Your task to perform on an android device: change the clock display to digital Image 0: 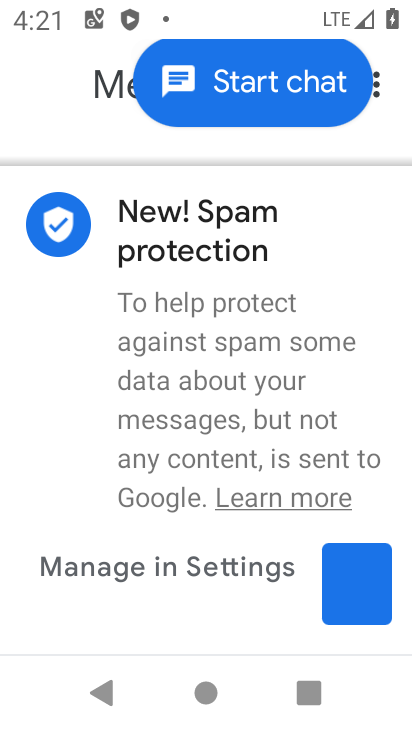
Step 0: press home button
Your task to perform on an android device: change the clock display to digital Image 1: 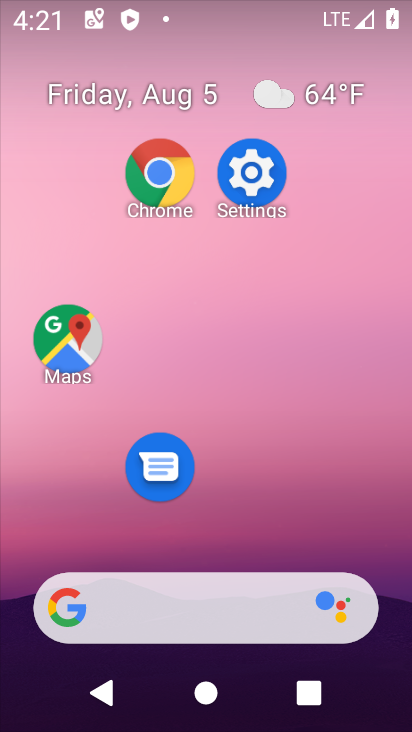
Step 1: drag from (281, 347) to (311, 0)
Your task to perform on an android device: change the clock display to digital Image 2: 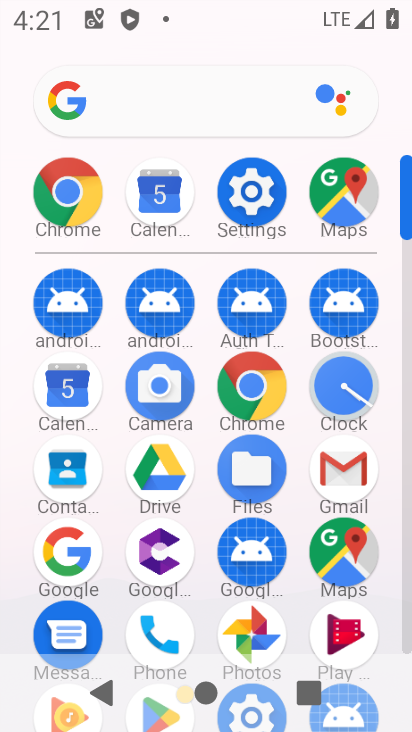
Step 2: click (255, 180)
Your task to perform on an android device: change the clock display to digital Image 3: 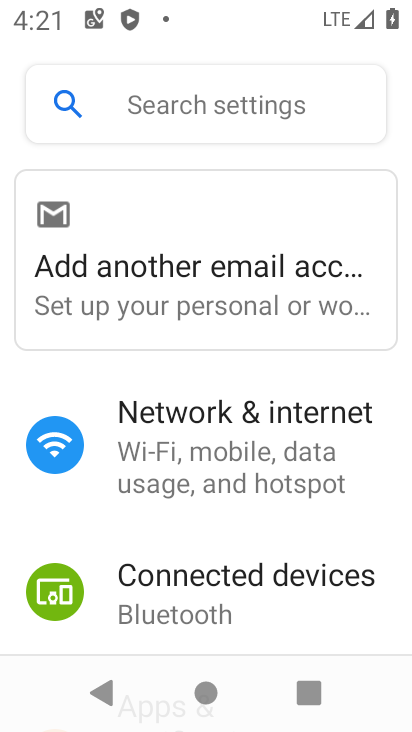
Step 3: drag from (203, 350) to (205, 60)
Your task to perform on an android device: change the clock display to digital Image 4: 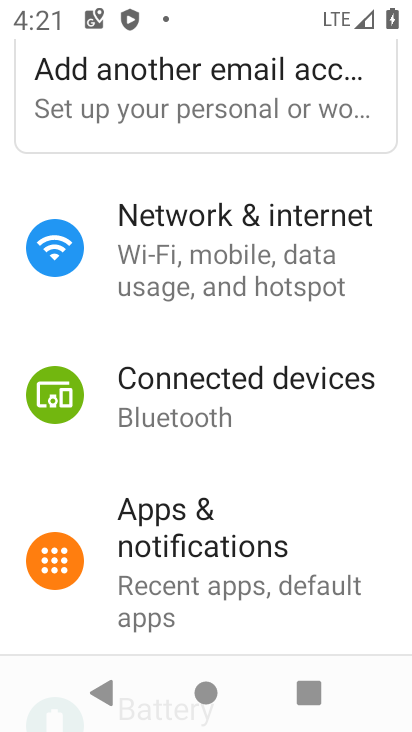
Step 4: click (181, 305)
Your task to perform on an android device: change the clock display to digital Image 5: 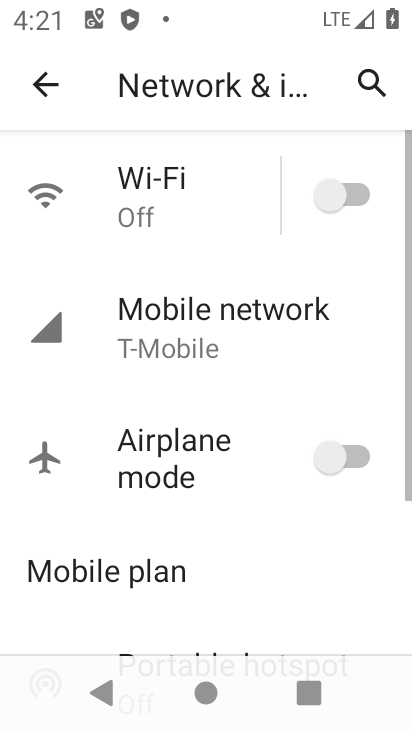
Step 5: drag from (181, 305) to (408, 143)
Your task to perform on an android device: change the clock display to digital Image 6: 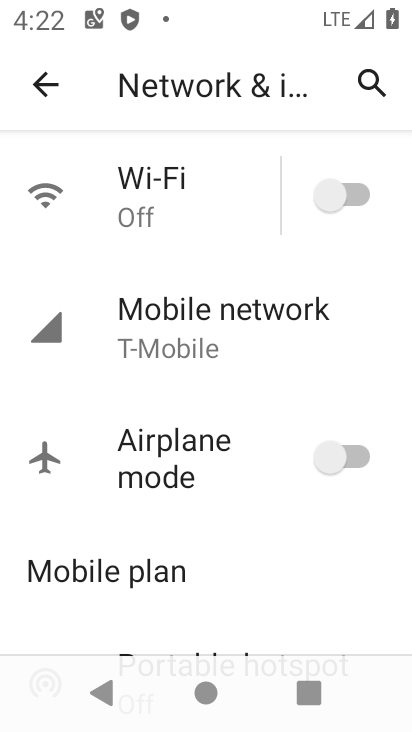
Step 6: press home button
Your task to perform on an android device: change the clock display to digital Image 7: 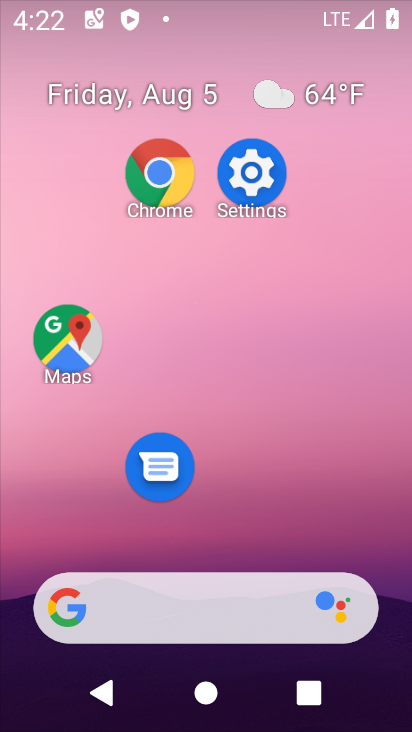
Step 7: drag from (258, 533) to (289, 0)
Your task to perform on an android device: change the clock display to digital Image 8: 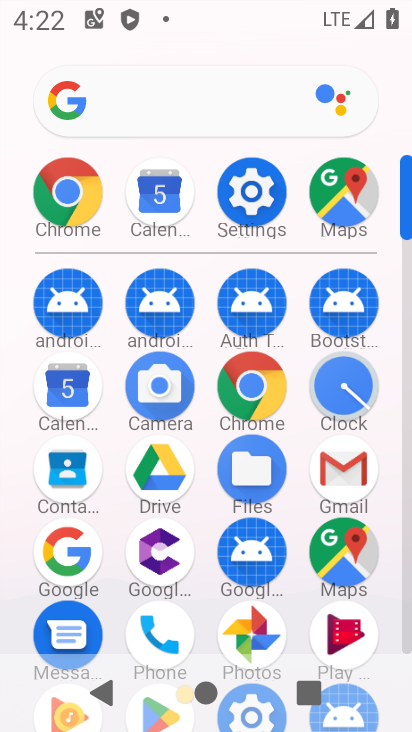
Step 8: click (345, 392)
Your task to perform on an android device: change the clock display to digital Image 9: 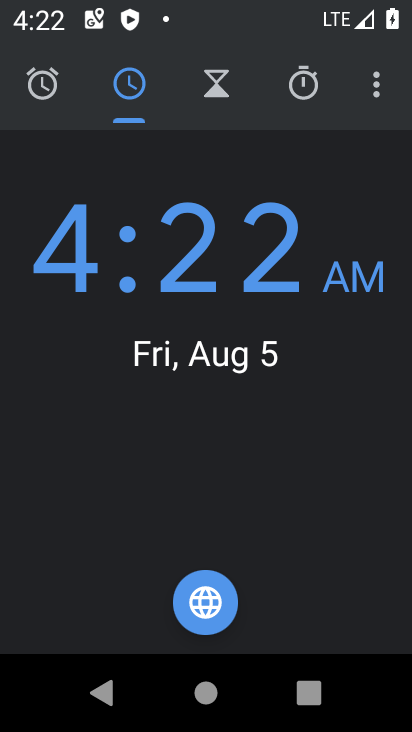
Step 9: click (375, 96)
Your task to perform on an android device: change the clock display to digital Image 10: 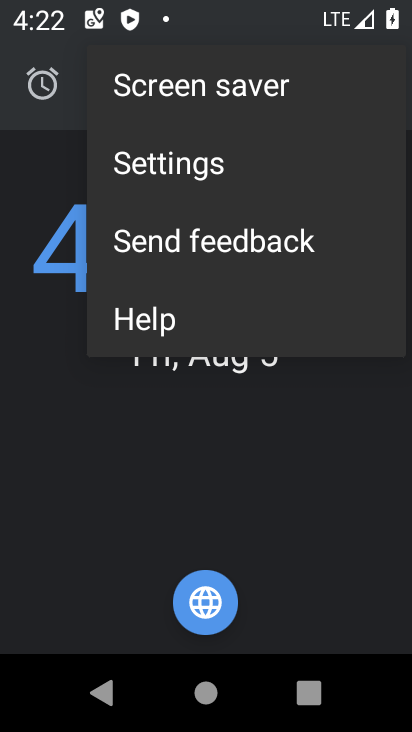
Step 10: click (166, 157)
Your task to perform on an android device: change the clock display to digital Image 11: 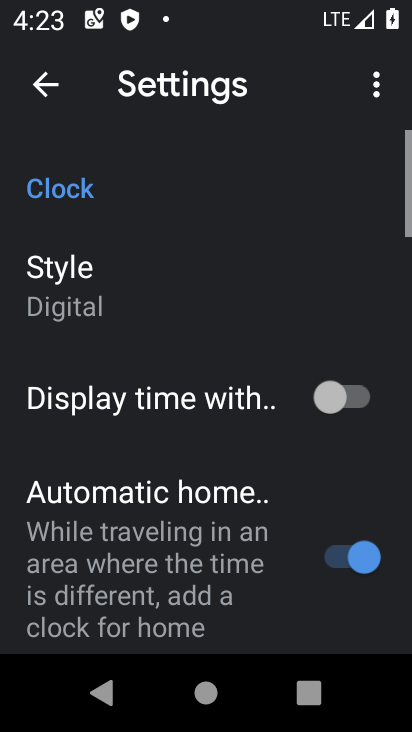
Step 11: drag from (222, 611) to (187, 453)
Your task to perform on an android device: change the clock display to digital Image 12: 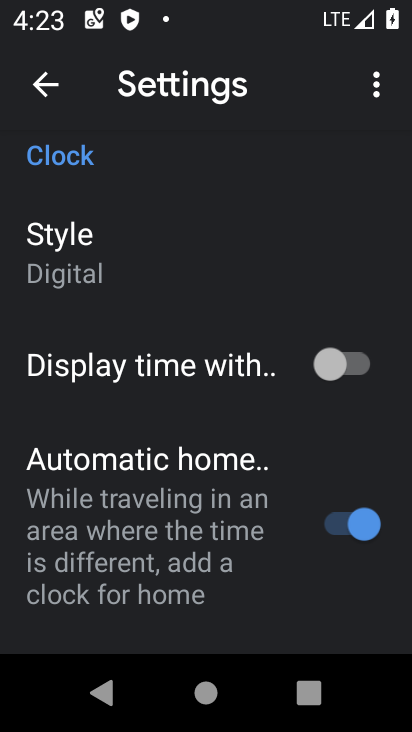
Step 12: click (41, 244)
Your task to perform on an android device: change the clock display to digital Image 13: 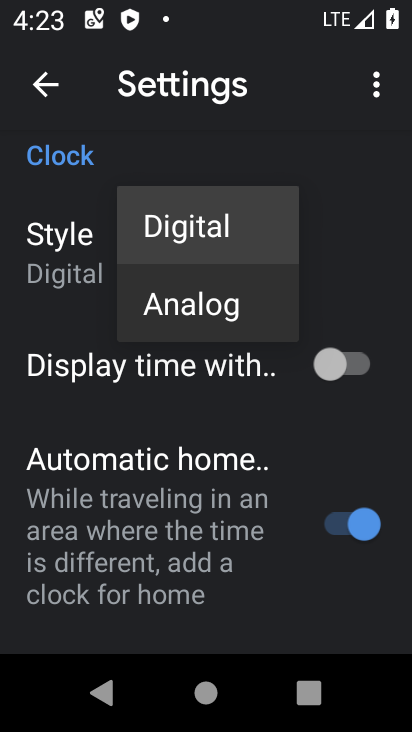
Step 13: click (206, 234)
Your task to perform on an android device: change the clock display to digital Image 14: 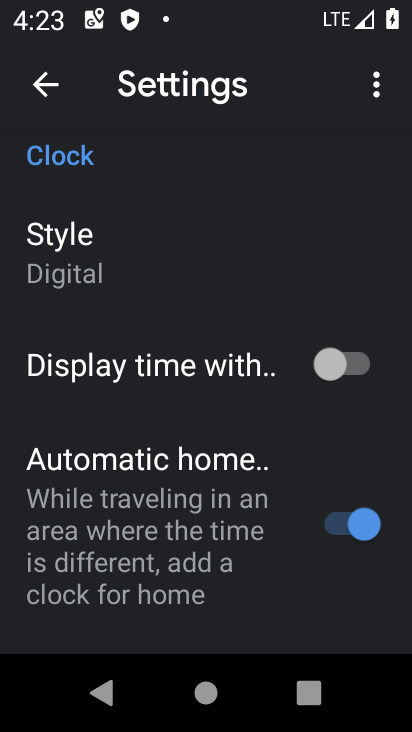
Step 14: task complete